Your task to perform on an android device: Go to accessibility settings Image 0: 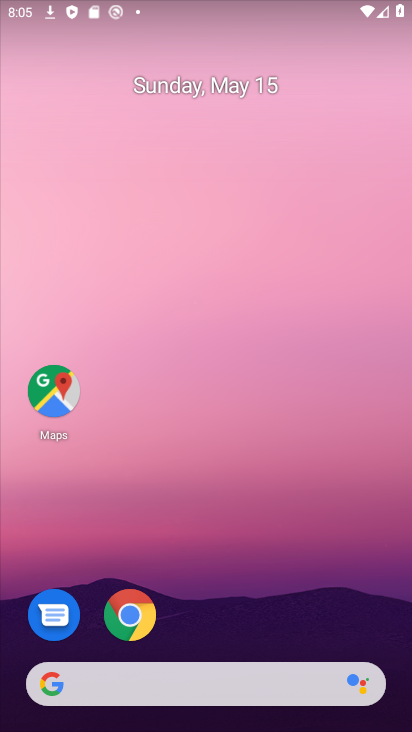
Step 0: drag from (243, 659) to (243, 250)
Your task to perform on an android device: Go to accessibility settings Image 1: 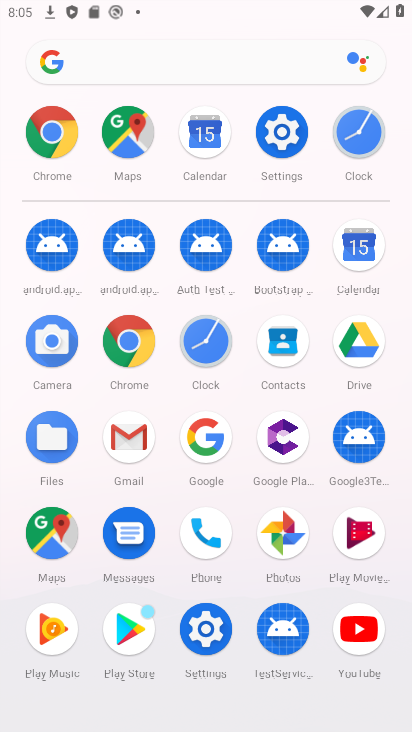
Step 1: click (267, 130)
Your task to perform on an android device: Go to accessibility settings Image 2: 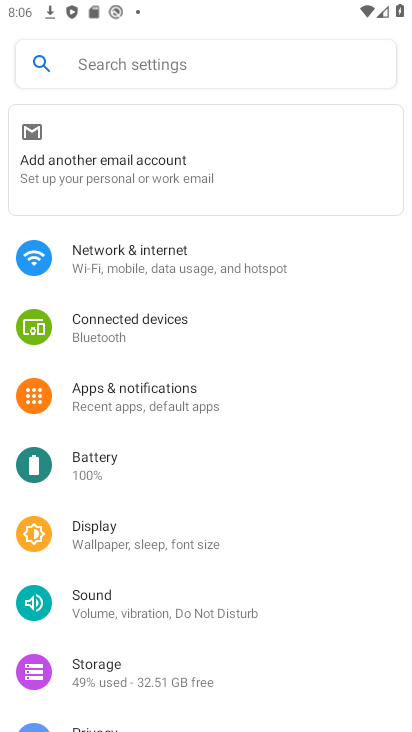
Step 2: click (140, 67)
Your task to perform on an android device: Go to accessibility settings Image 3: 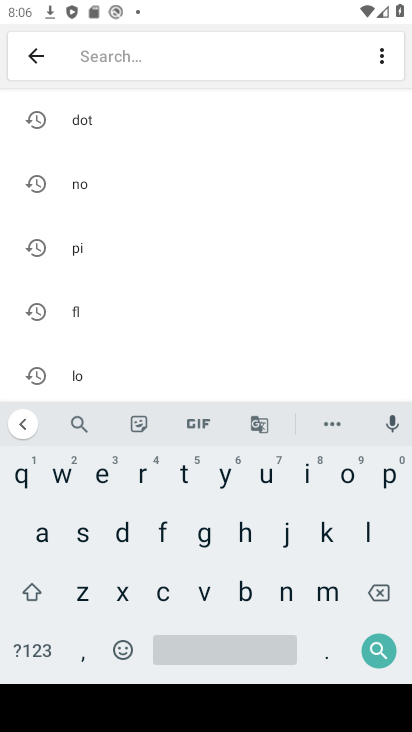
Step 3: click (40, 538)
Your task to perform on an android device: Go to accessibility settings Image 4: 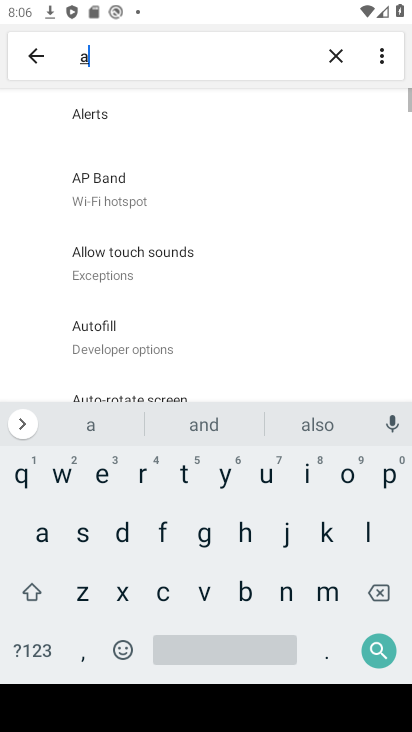
Step 4: click (165, 592)
Your task to perform on an android device: Go to accessibility settings Image 5: 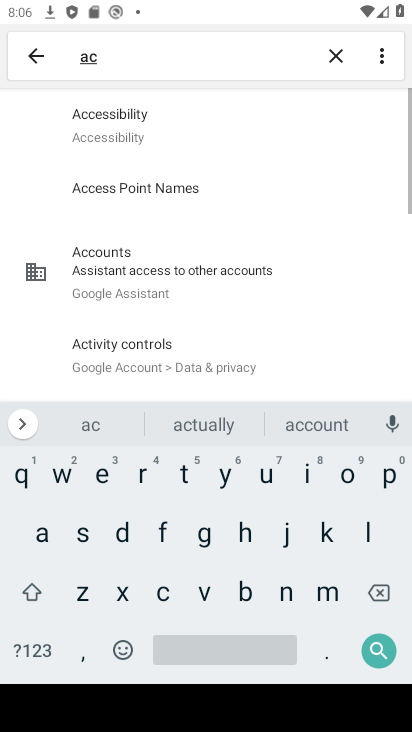
Step 5: click (165, 592)
Your task to perform on an android device: Go to accessibility settings Image 6: 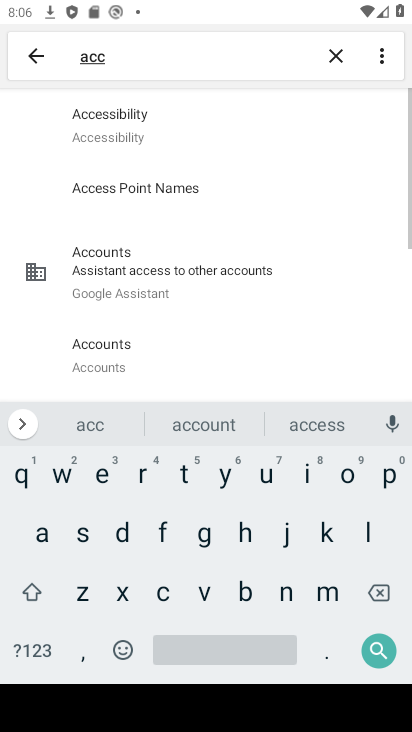
Step 6: click (127, 124)
Your task to perform on an android device: Go to accessibility settings Image 7: 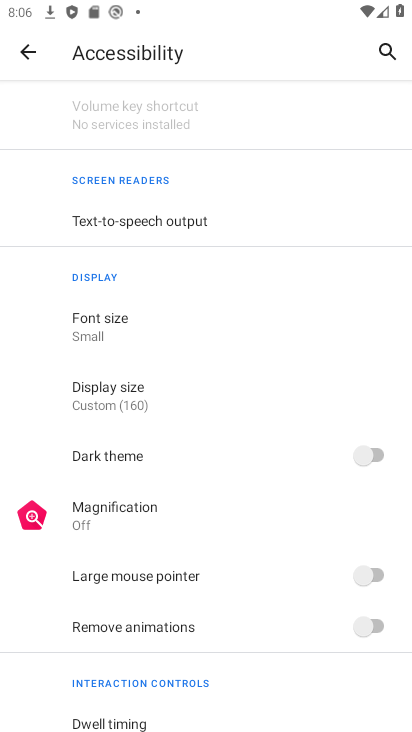
Step 7: task complete